Your task to perform on an android device: Clear the shopping cart on walmart.com. Image 0: 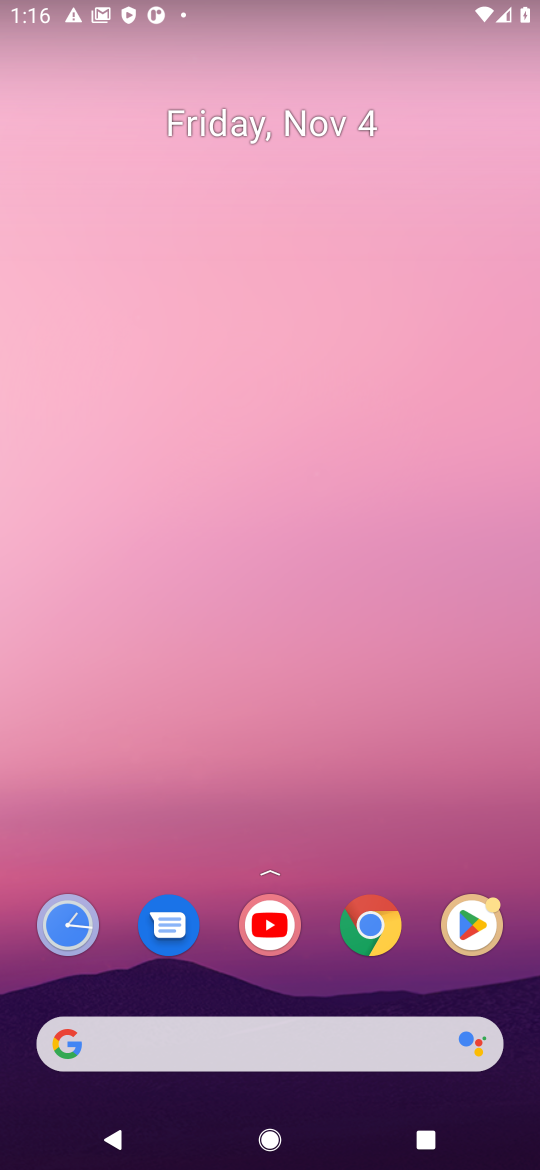
Step 0: press home button
Your task to perform on an android device: Clear the shopping cart on walmart.com. Image 1: 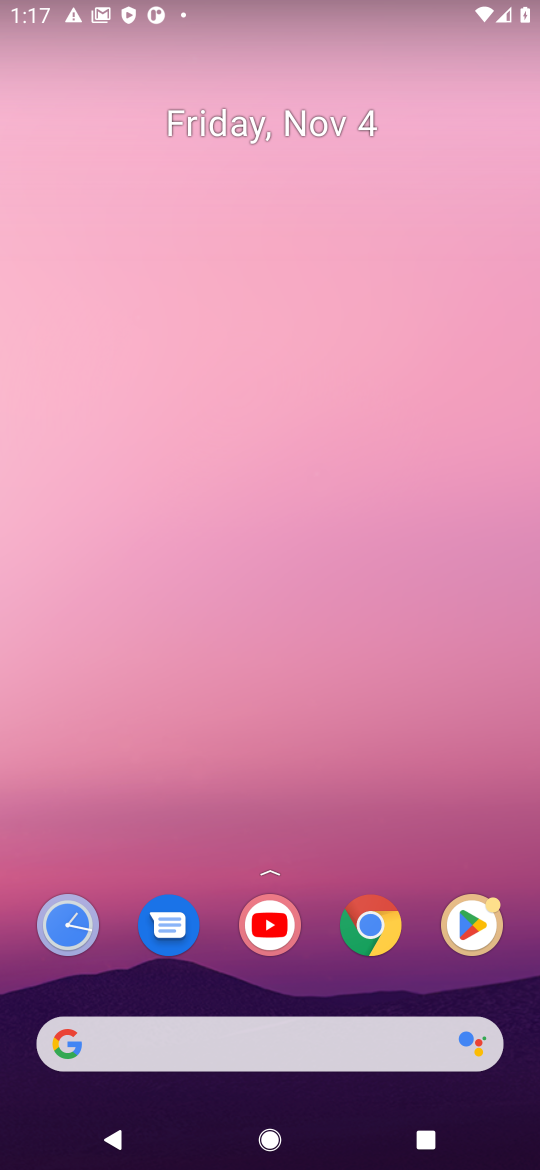
Step 1: click (379, 916)
Your task to perform on an android device: Clear the shopping cart on walmart.com. Image 2: 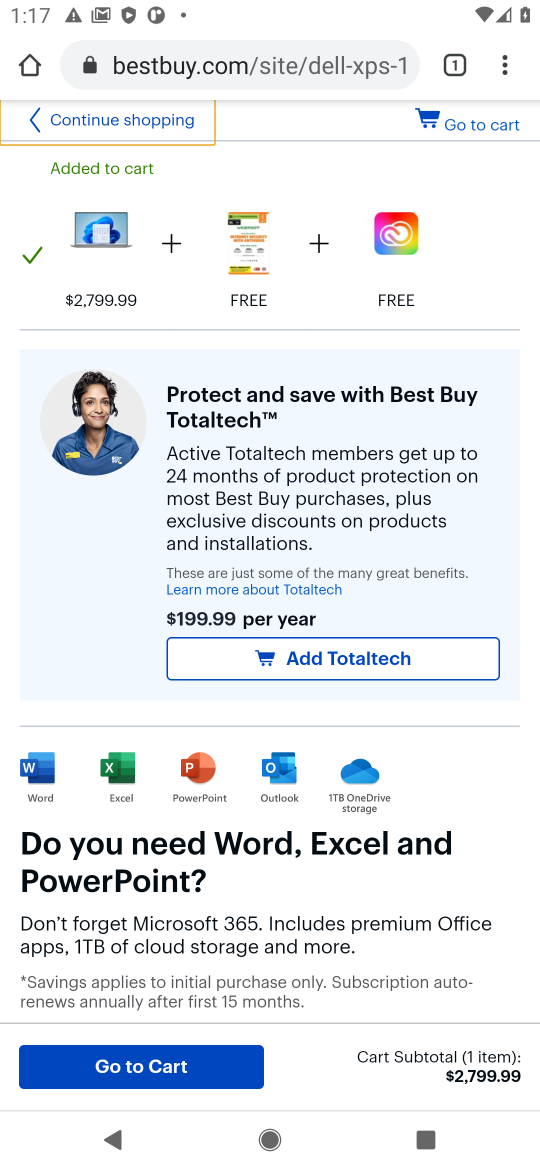
Step 2: click (183, 68)
Your task to perform on an android device: Clear the shopping cart on walmart.com. Image 3: 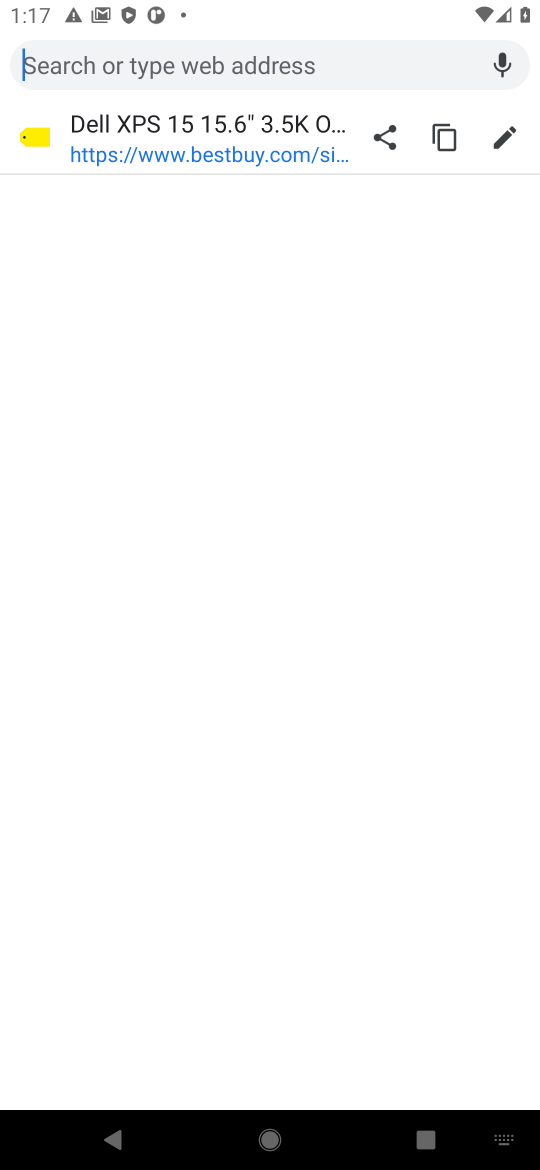
Step 3: type "walmart.com"
Your task to perform on an android device: Clear the shopping cart on walmart.com. Image 4: 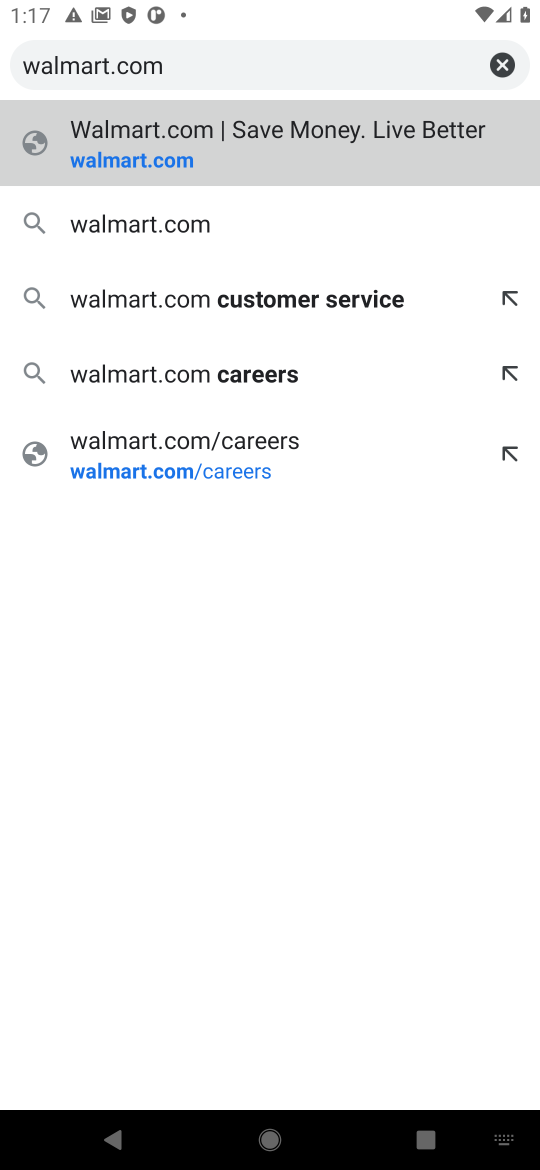
Step 4: click (171, 216)
Your task to perform on an android device: Clear the shopping cart on walmart.com. Image 5: 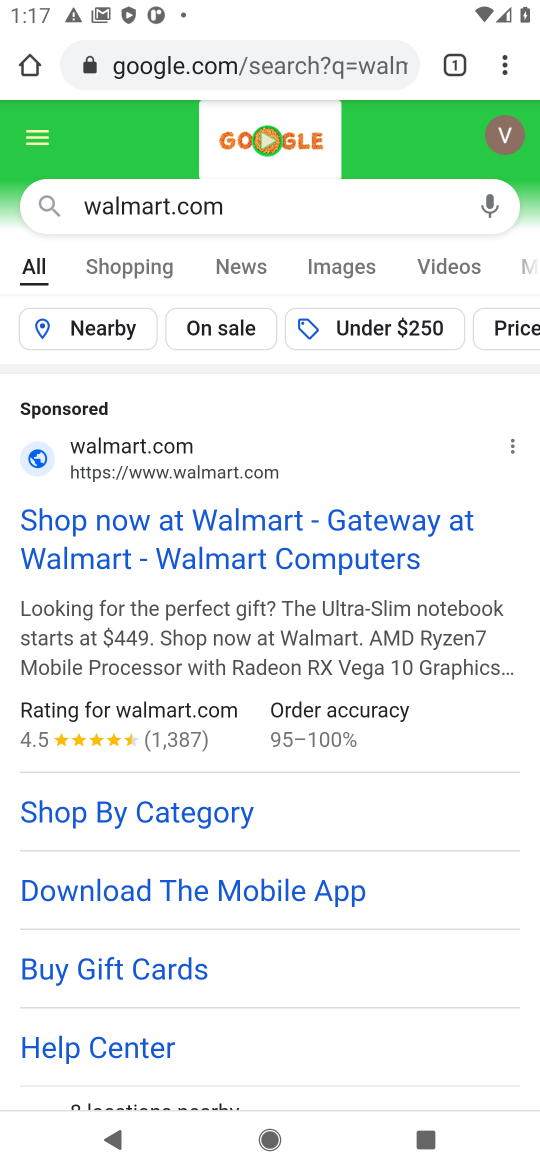
Step 5: click (153, 444)
Your task to perform on an android device: Clear the shopping cart on walmart.com. Image 6: 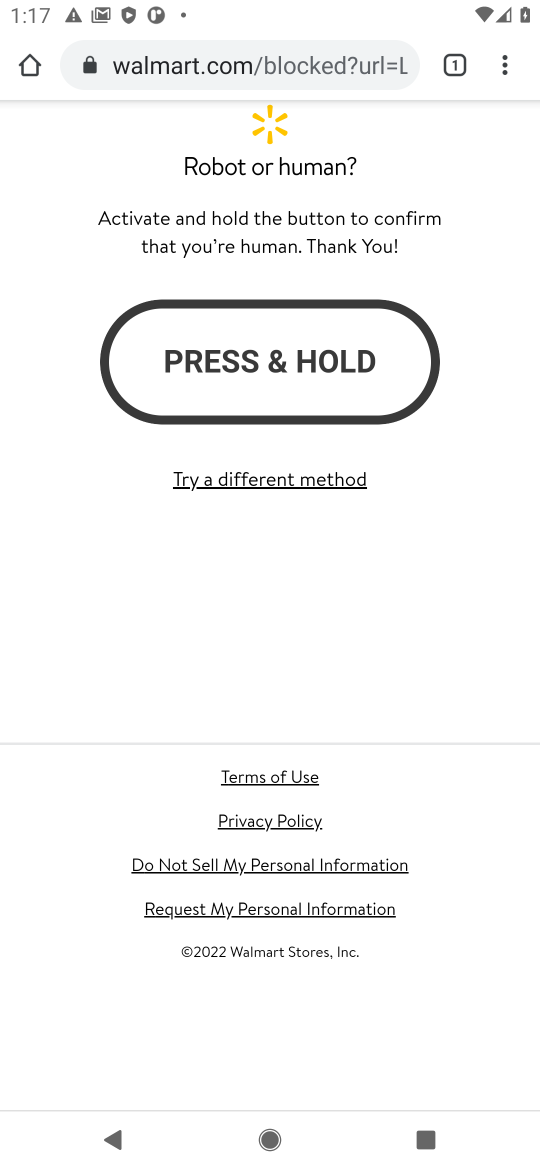
Step 6: click (298, 68)
Your task to perform on an android device: Clear the shopping cart on walmart.com. Image 7: 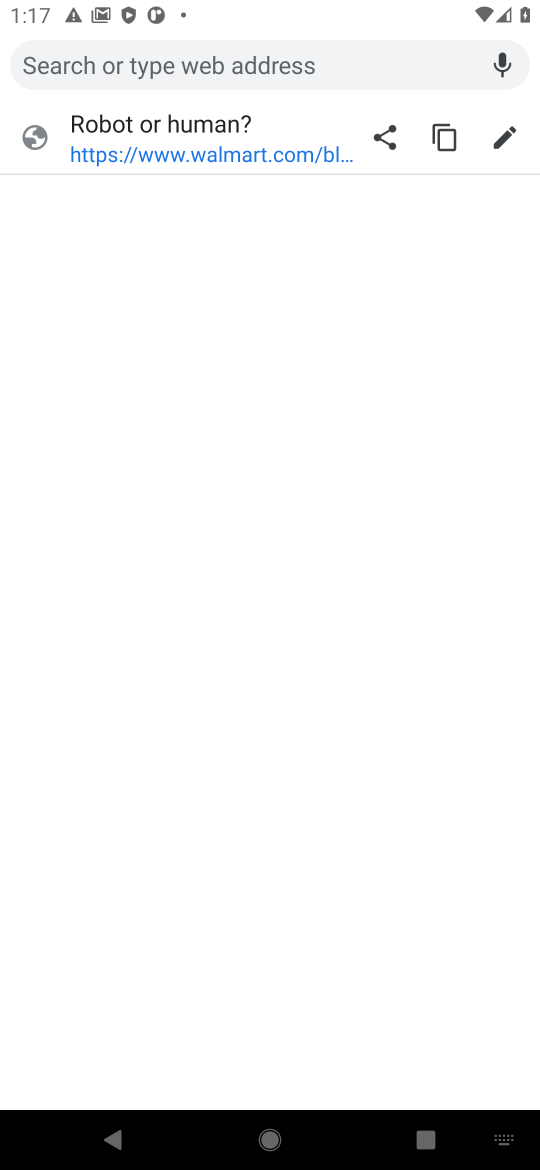
Step 7: type "walmart.com"
Your task to perform on an android device: Clear the shopping cart on walmart.com. Image 8: 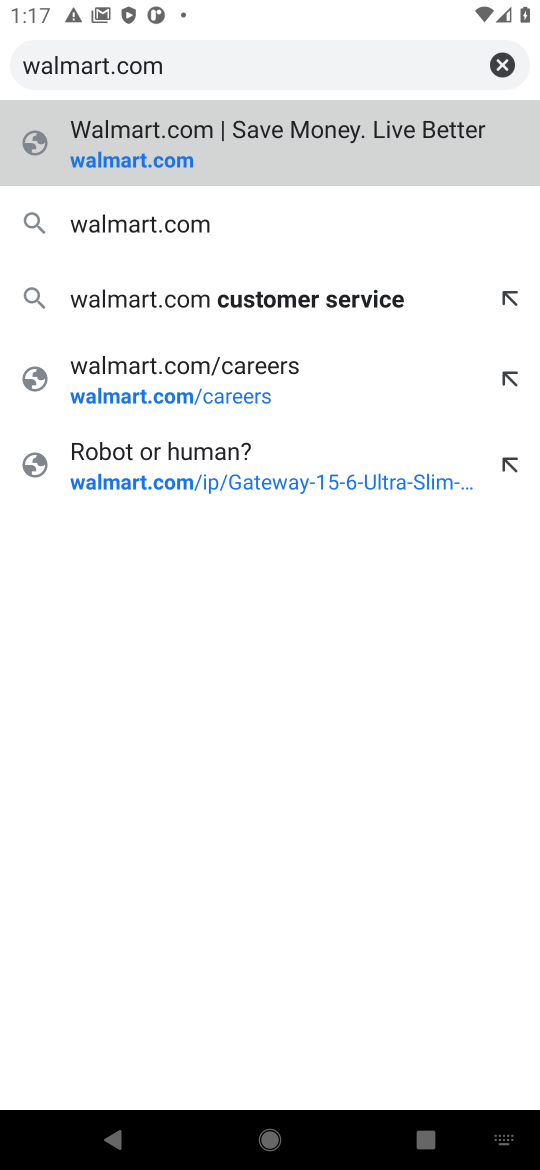
Step 8: click (176, 213)
Your task to perform on an android device: Clear the shopping cart on walmart.com. Image 9: 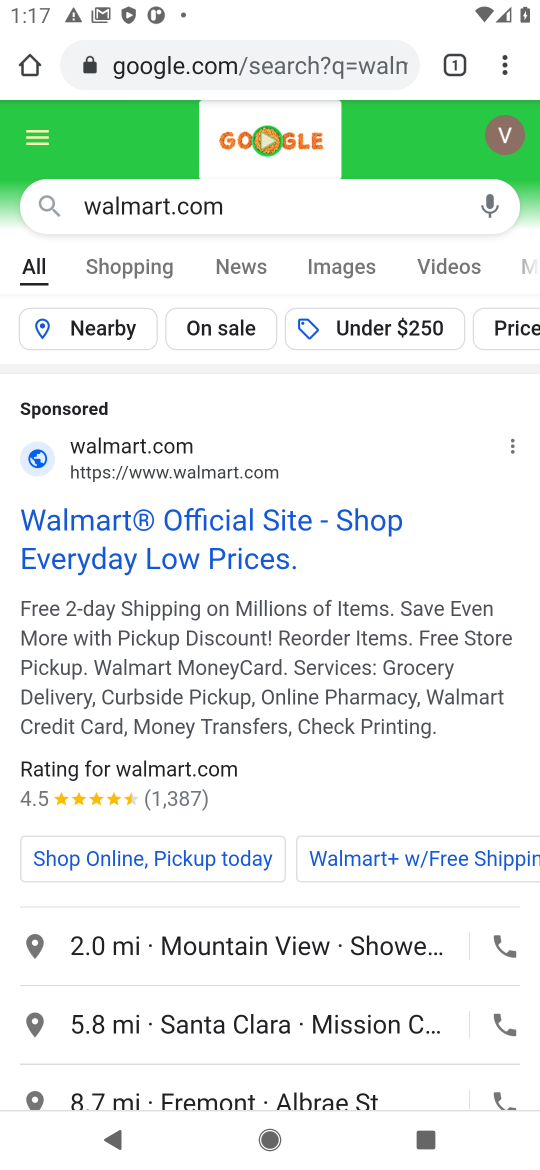
Step 9: drag from (241, 643) to (289, 322)
Your task to perform on an android device: Clear the shopping cart on walmart.com. Image 10: 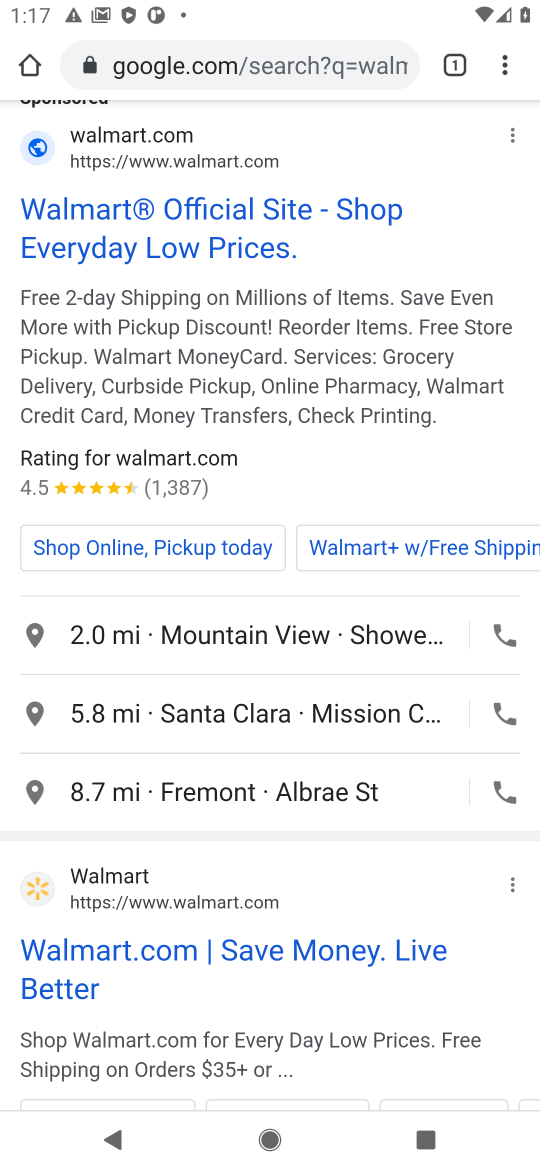
Step 10: click (189, 899)
Your task to perform on an android device: Clear the shopping cart on walmart.com. Image 11: 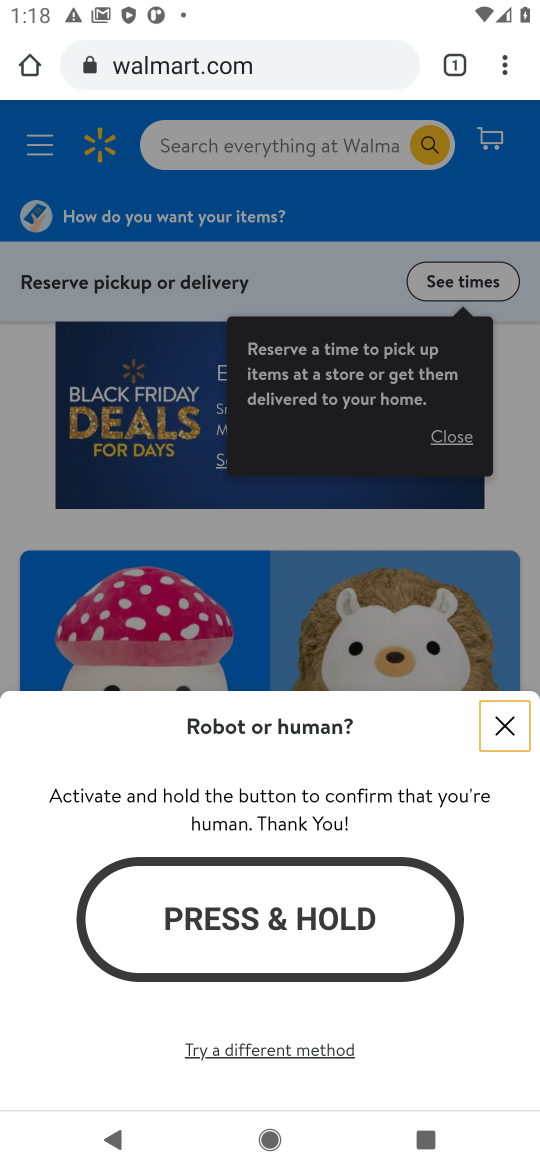
Step 11: click (496, 725)
Your task to perform on an android device: Clear the shopping cart on walmart.com. Image 12: 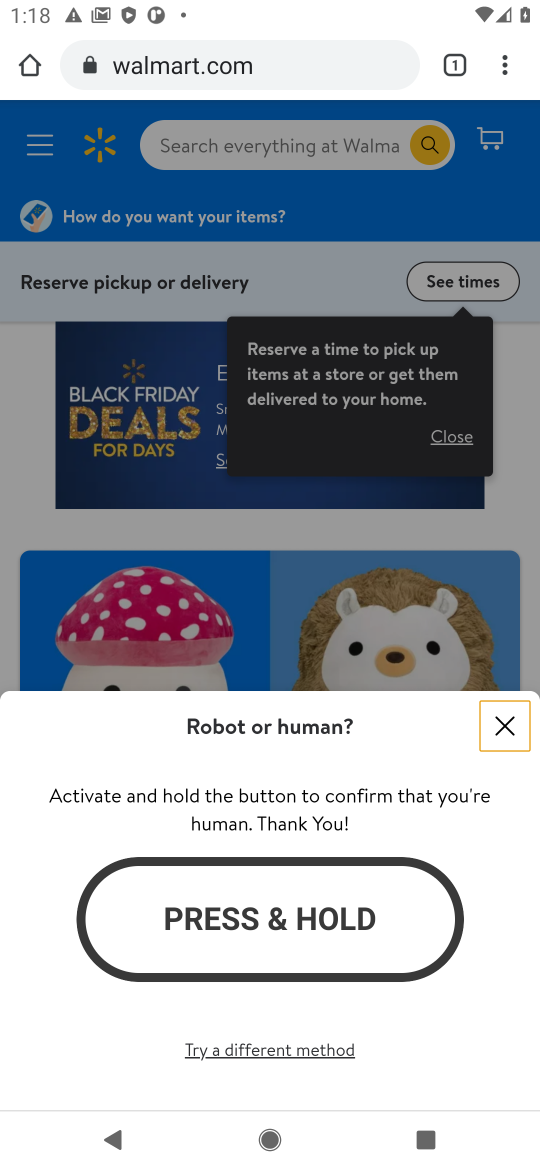
Step 12: click (498, 727)
Your task to perform on an android device: Clear the shopping cart on walmart.com. Image 13: 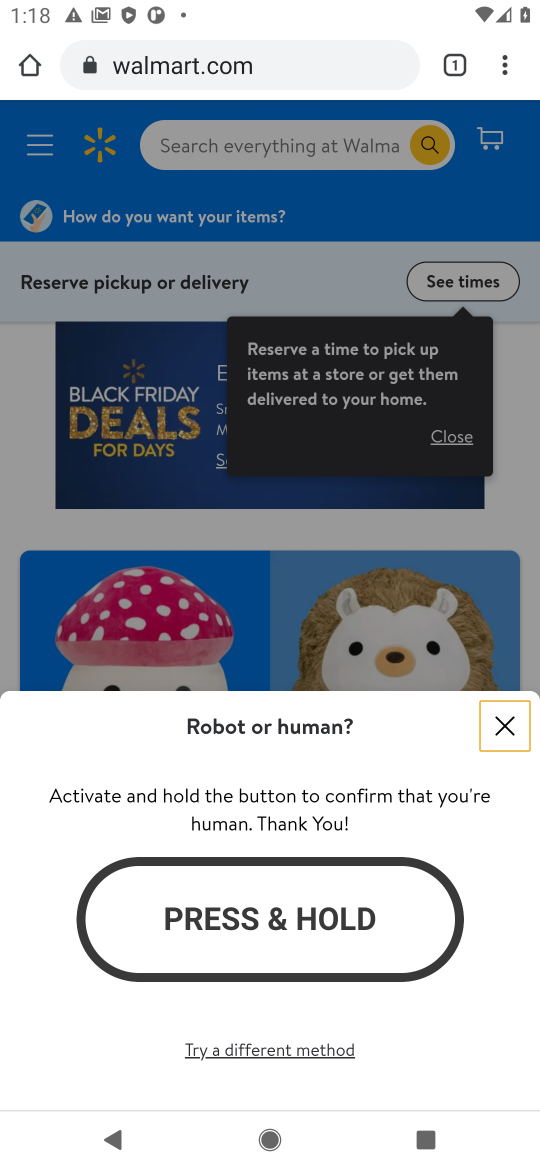
Step 13: click (494, 142)
Your task to perform on an android device: Clear the shopping cart on walmart.com. Image 14: 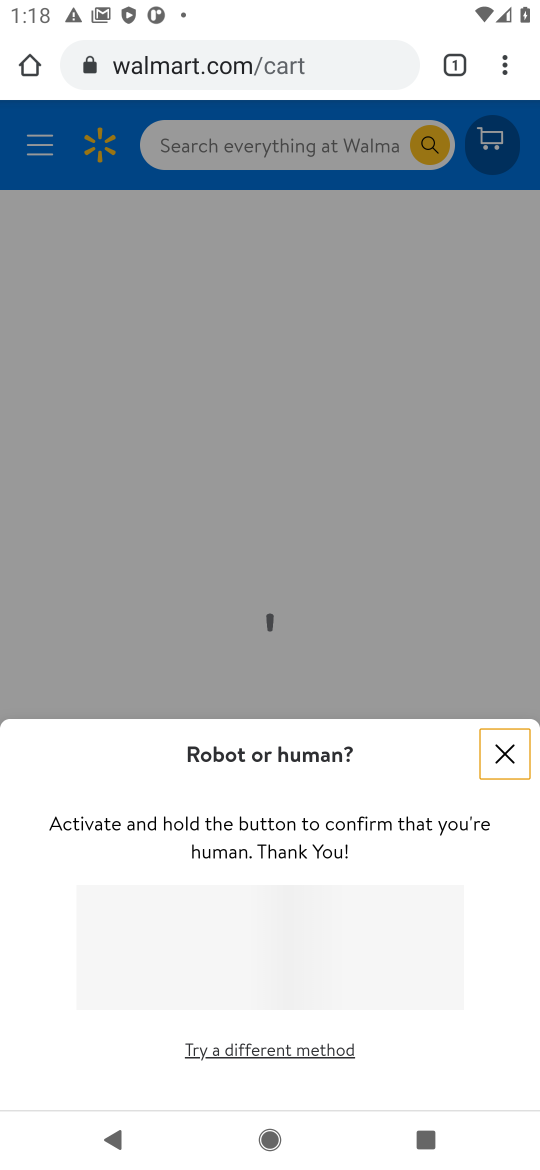
Step 14: task complete